Your task to perform on an android device: check out phone information Image 0: 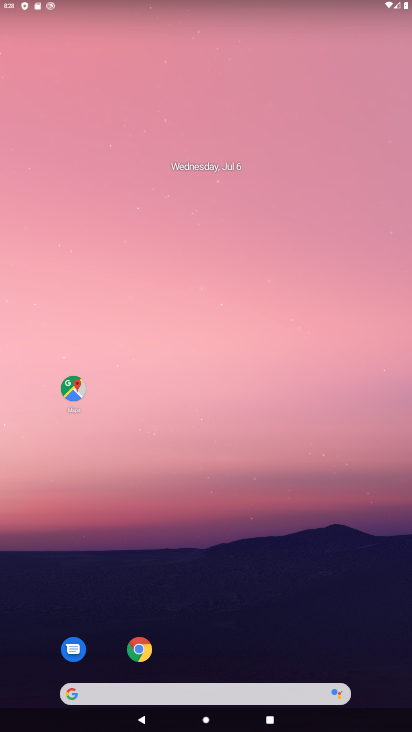
Step 0: drag from (204, 666) to (208, 32)
Your task to perform on an android device: check out phone information Image 1: 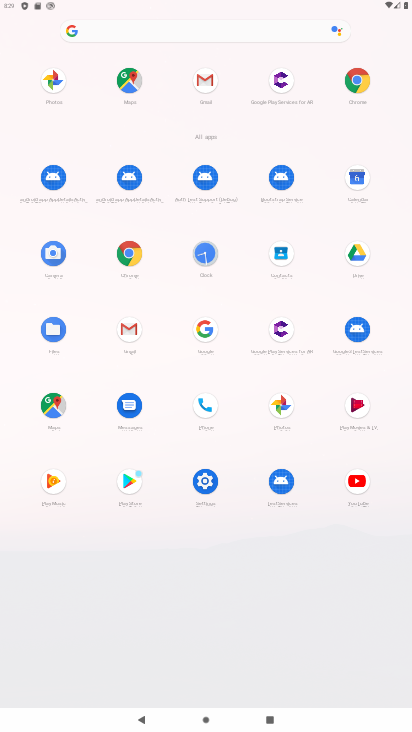
Step 1: click (207, 479)
Your task to perform on an android device: check out phone information Image 2: 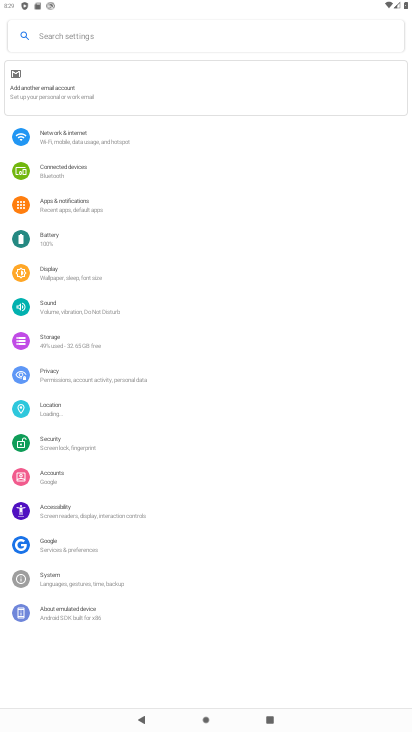
Step 2: click (61, 610)
Your task to perform on an android device: check out phone information Image 3: 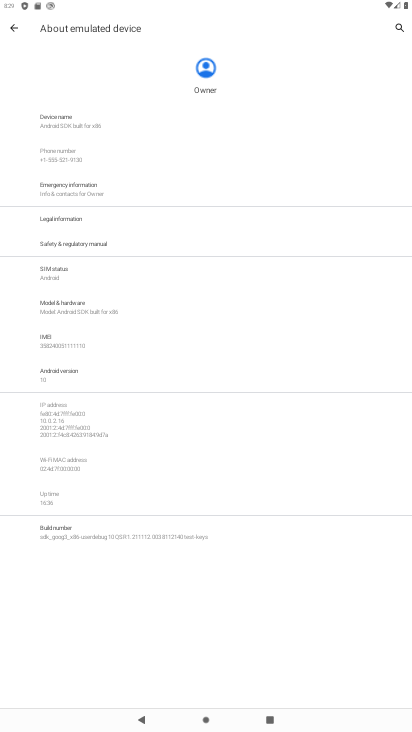
Step 3: task complete